Your task to perform on an android device: Open calendar and show me the first week of next month Image 0: 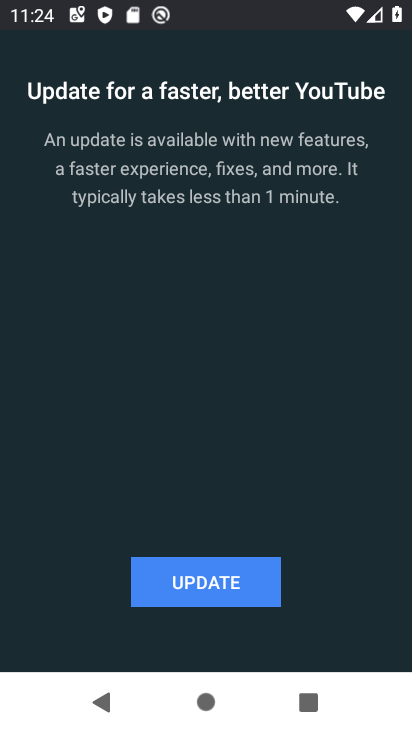
Step 0: press home button
Your task to perform on an android device: Open calendar and show me the first week of next month Image 1: 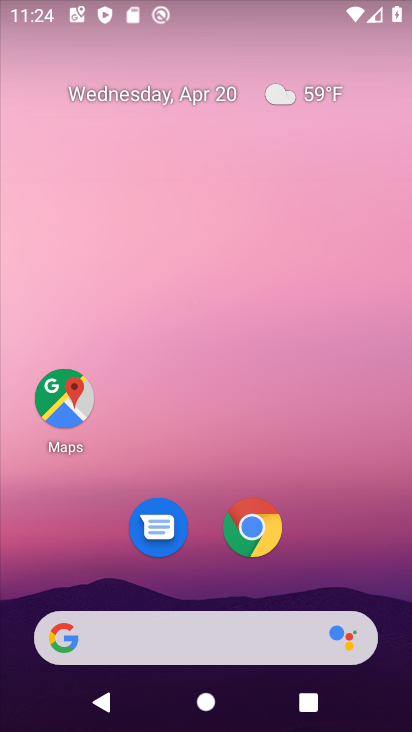
Step 1: drag from (369, 531) to (386, 133)
Your task to perform on an android device: Open calendar and show me the first week of next month Image 2: 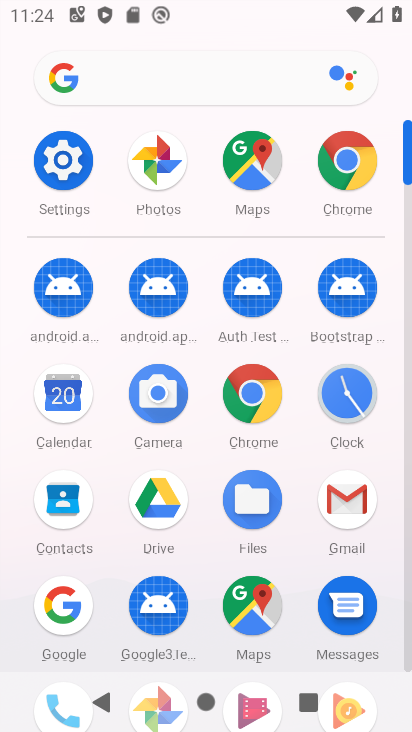
Step 2: click (66, 402)
Your task to perform on an android device: Open calendar and show me the first week of next month Image 3: 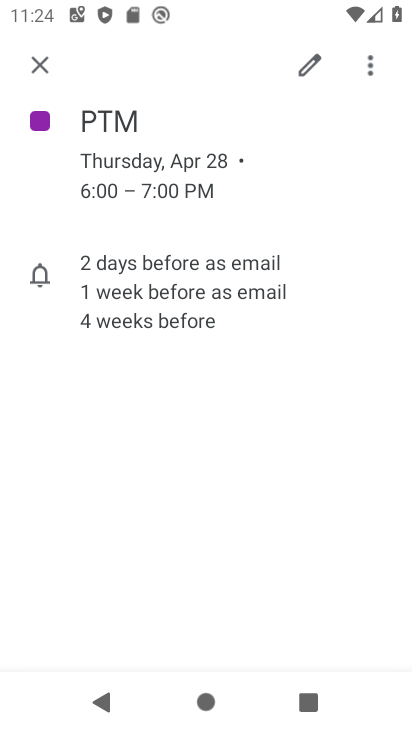
Step 3: click (47, 72)
Your task to perform on an android device: Open calendar and show me the first week of next month Image 4: 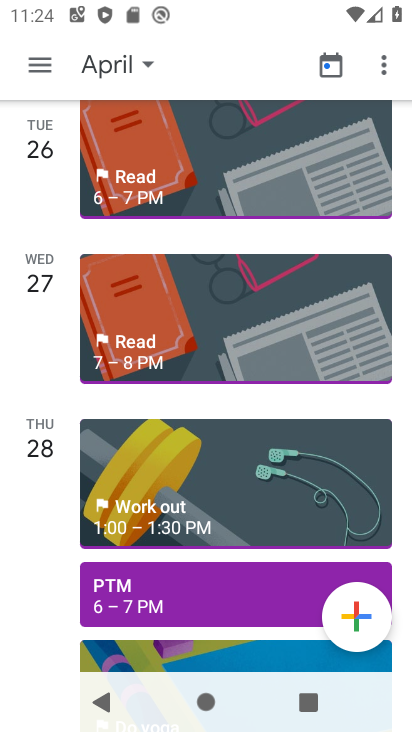
Step 4: click (113, 65)
Your task to perform on an android device: Open calendar and show me the first week of next month Image 5: 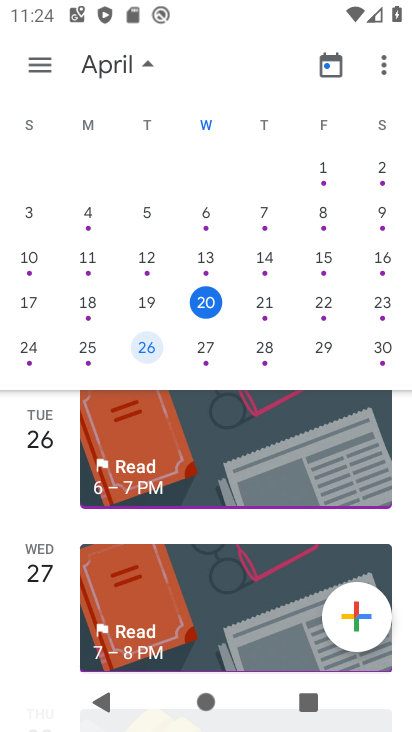
Step 5: task complete